Your task to perform on an android device: Open network settings Image 0: 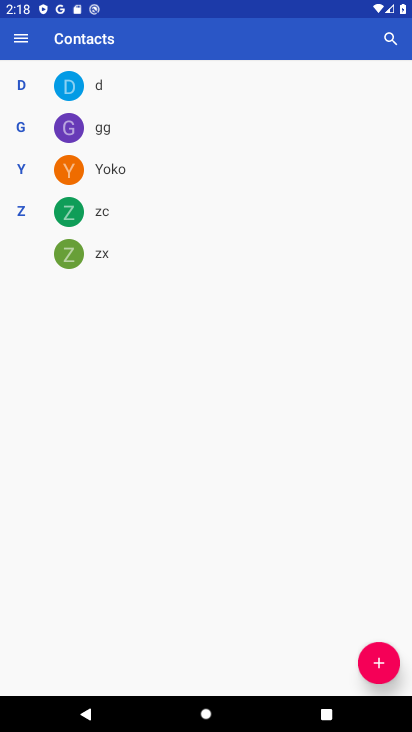
Step 0: press back button
Your task to perform on an android device: Open network settings Image 1: 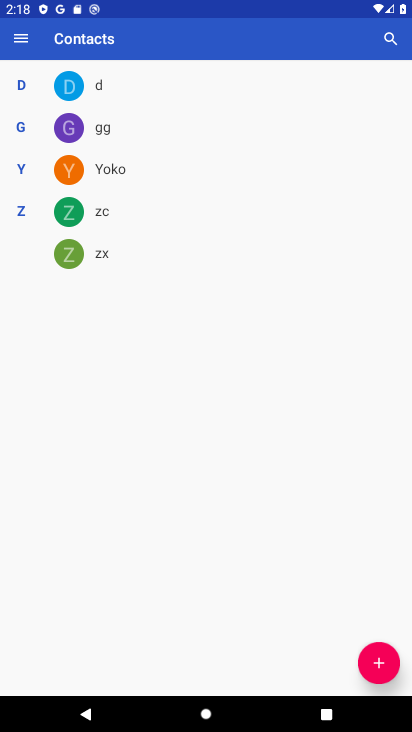
Step 1: press back button
Your task to perform on an android device: Open network settings Image 2: 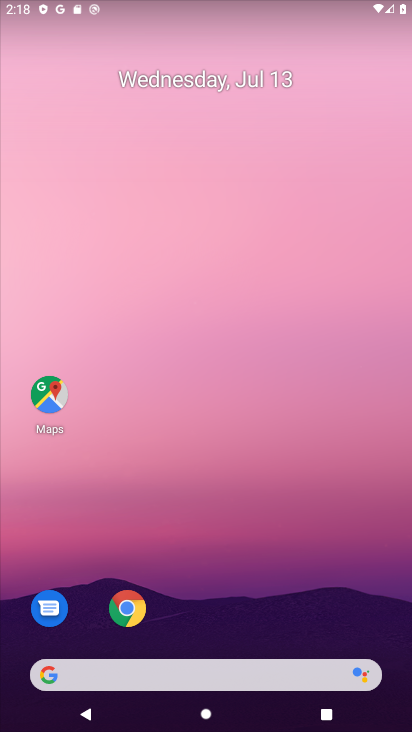
Step 2: drag from (244, 645) to (135, 70)
Your task to perform on an android device: Open network settings Image 3: 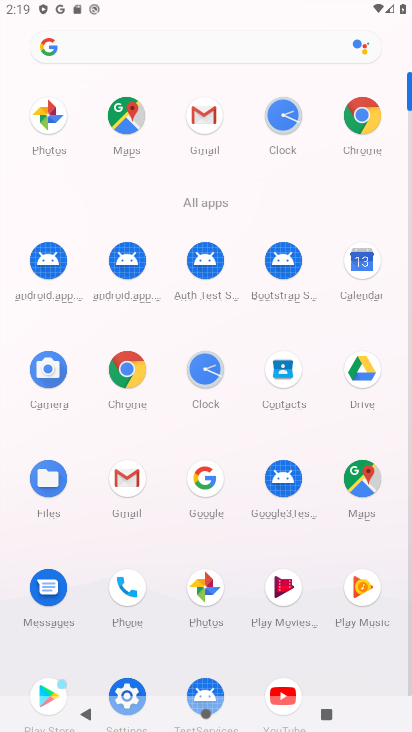
Step 3: click (120, 690)
Your task to perform on an android device: Open network settings Image 4: 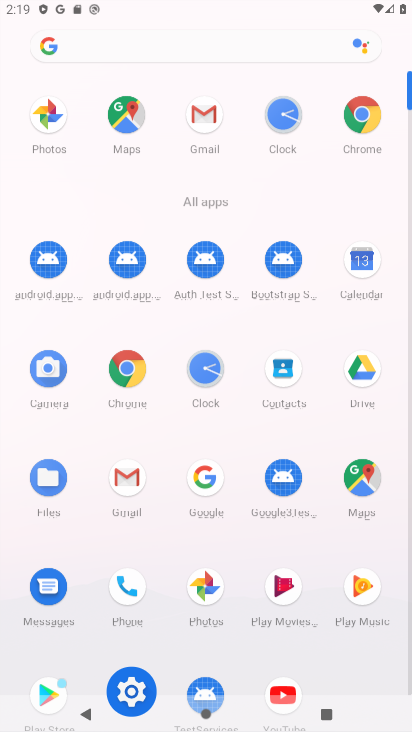
Step 4: click (125, 688)
Your task to perform on an android device: Open network settings Image 5: 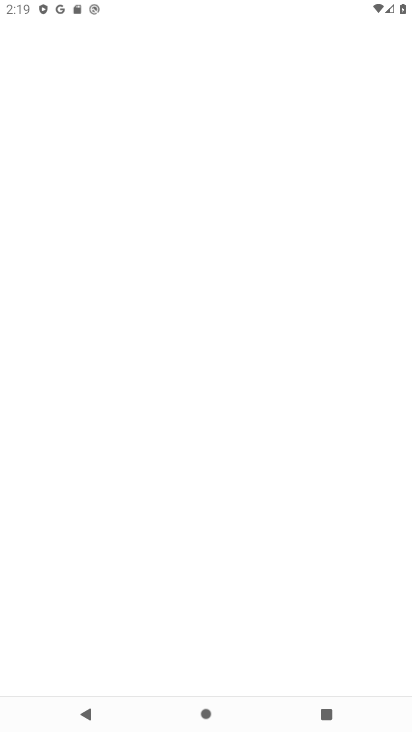
Step 5: click (130, 687)
Your task to perform on an android device: Open network settings Image 6: 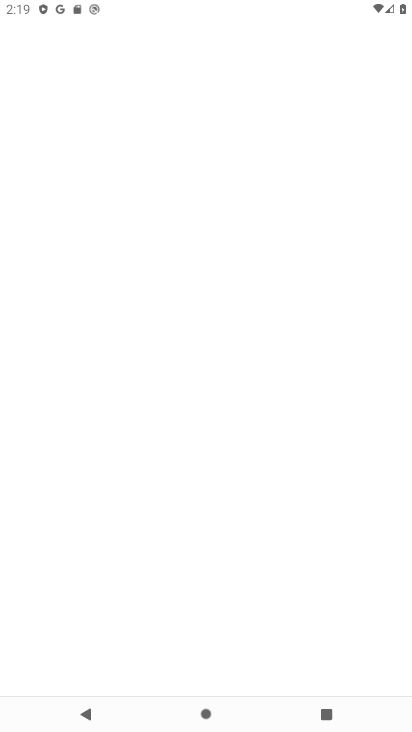
Step 6: drag from (161, 499) to (143, 203)
Your task to perform on an android device: Open network settings Image 7: 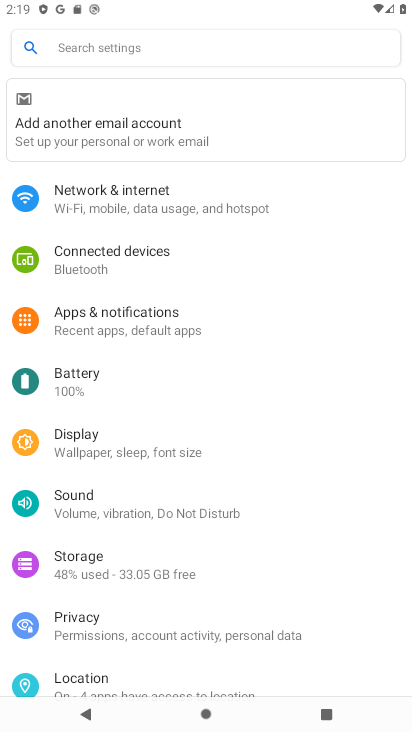
Step 7: drag from (149, 548) to (81, 145)
Your task to perform on an android device: Open network settings Image 8: 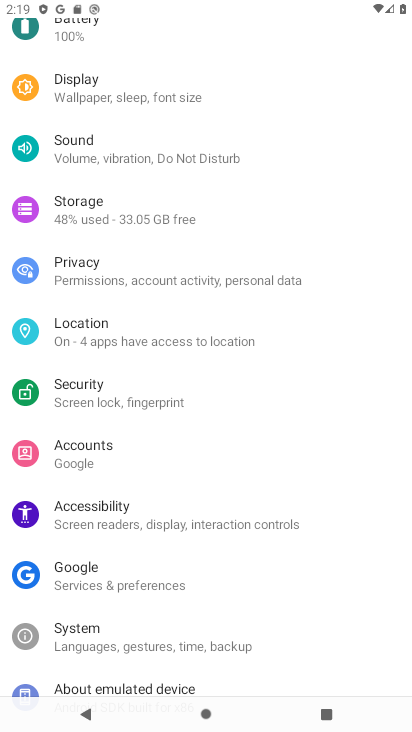
Step 8: drag from (159, 481) to (119, 203)
Your task to perform on an android device: Open network settings Image 9: 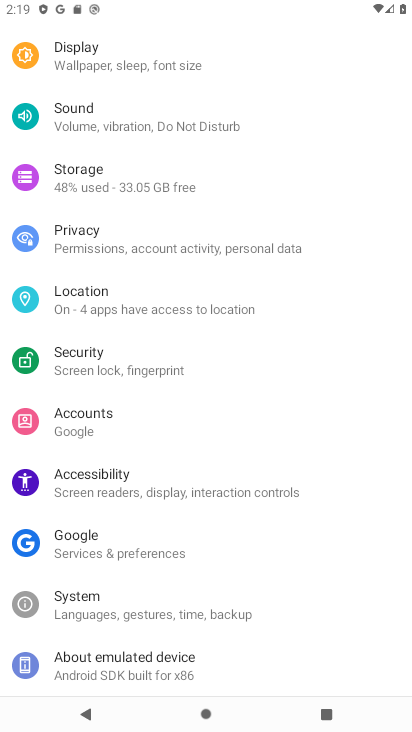
Step 9: drag from (108, 224) to (165, 609)
Your task to perform on an android device: Open network settings Image 10: 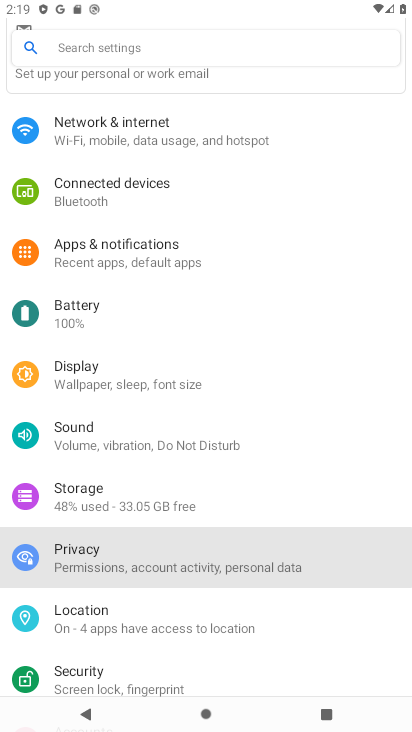
Step 10: drag from (169, 284) to (171, 526)
Your task to perform on an android device: Open network settings Image 11: 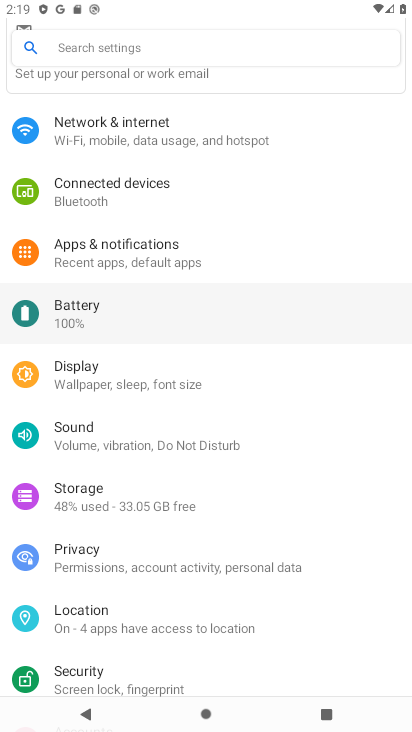
Step 11: drag from (121, 226) to (121, 645)
Your task to perform on an android device: Open network settings Image 12: 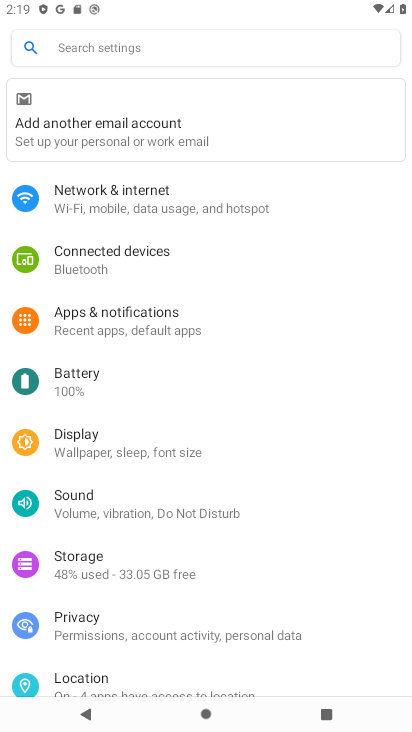
Step 12: click (110, 198)
Your task to perform on an android device: Open network settings Image 13: 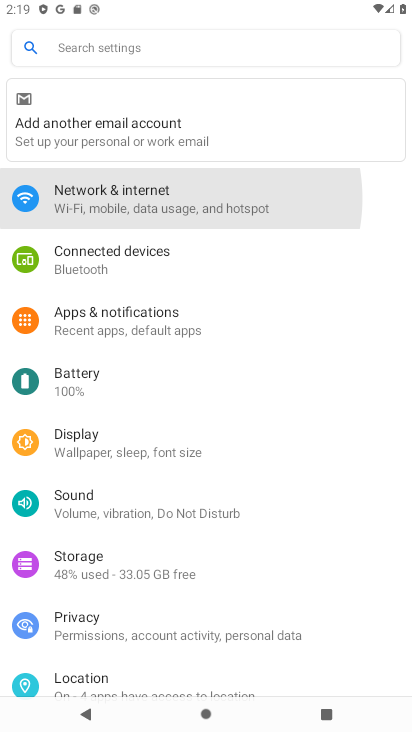
Step 13: click (110, 198)
Your task to perform on an android device: Open network settings Image 14: 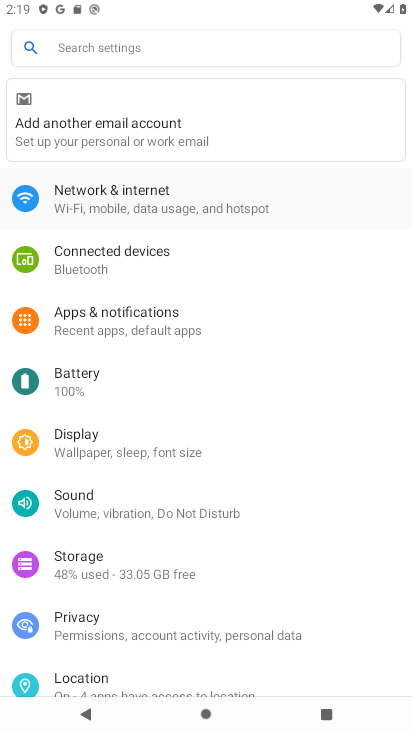
Step 14: click (110, 198)
Your task to perform on an android device: Open network settings Image 15: 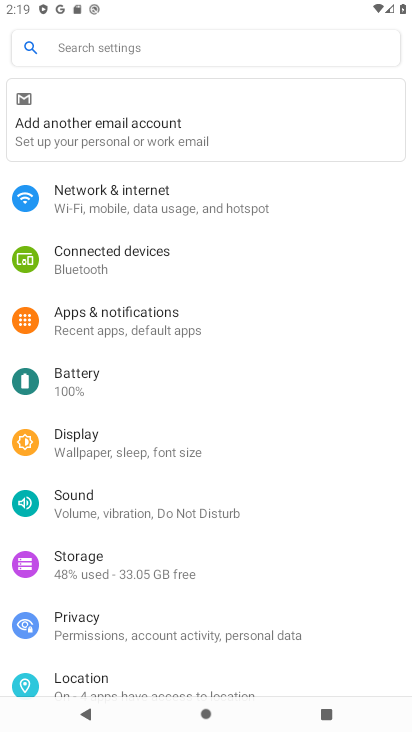
Step 15: click (110, 198)
Your task to perform on an android device: Open network settings Image 16: 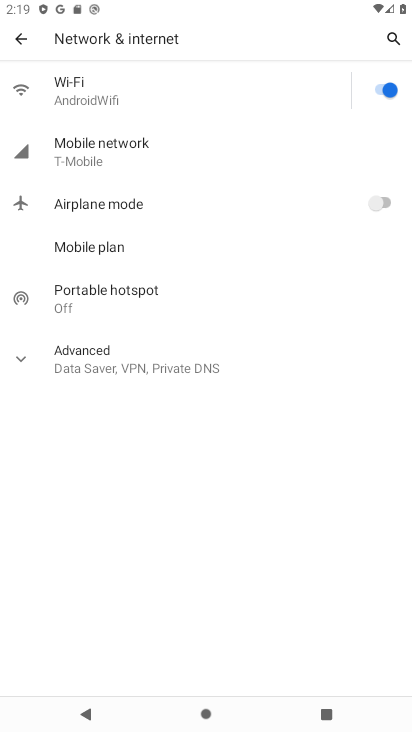
Step 16: task complete